Your task to perform on an android device: See recent photos Image 0: 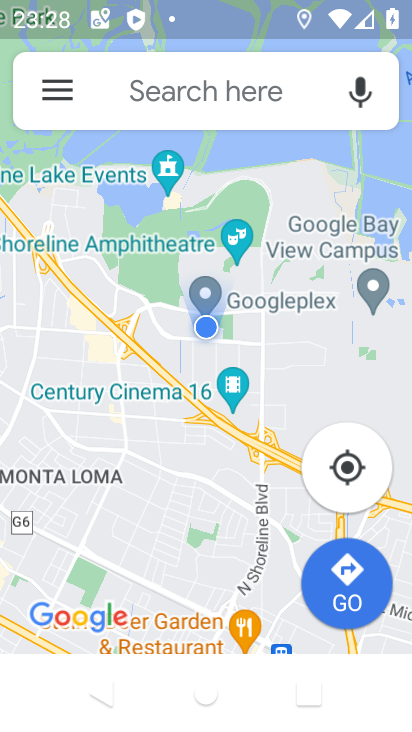
Step 0: press home button
Your task to perform on an android device: See recent photos Image 1: 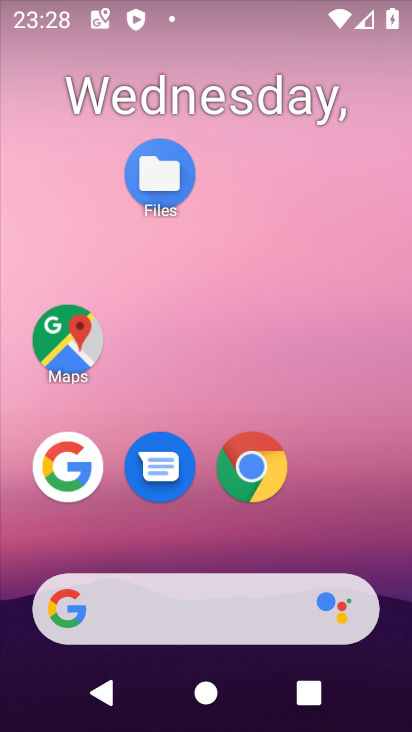
Step 1: drag from (204, 564) to (186, 90)
Your task to perform on an android device: See recent photos Image 2: 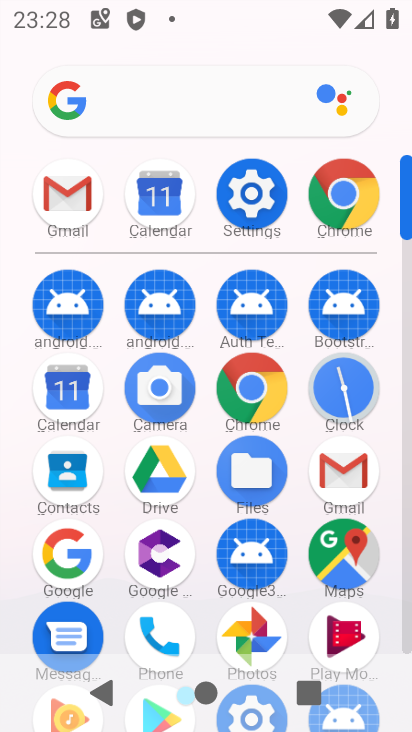
Step 2: click (265, 647)
Your task to perform on an android device: See recent photos Image 3: 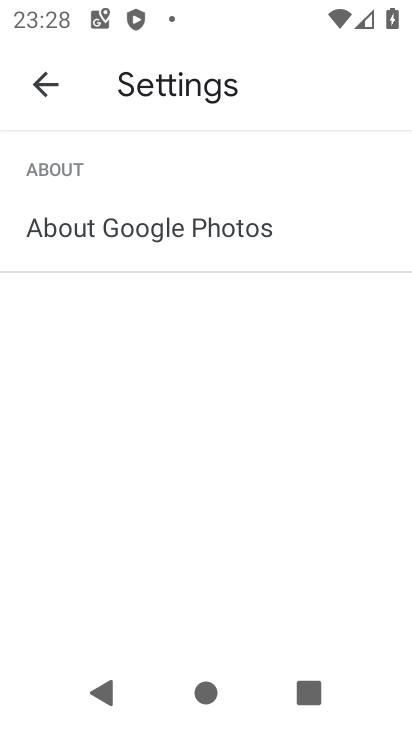
Step 3: click (39, 80)
Your task to perform on an android device: See recent photos Image 4: 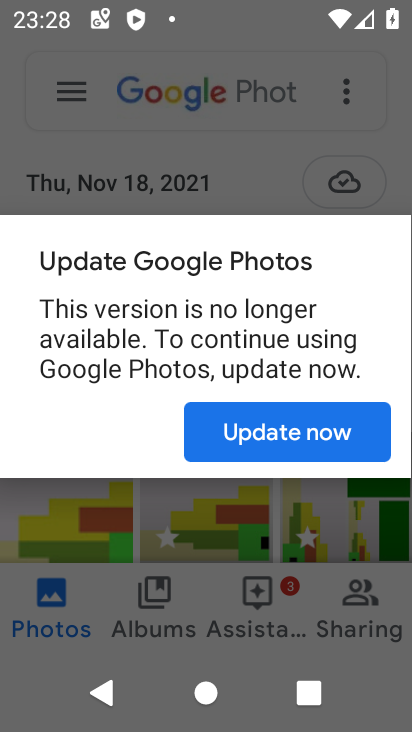
Step 4: click (276, 430)
Your task to perform on an android device: See recent photos Image 5: 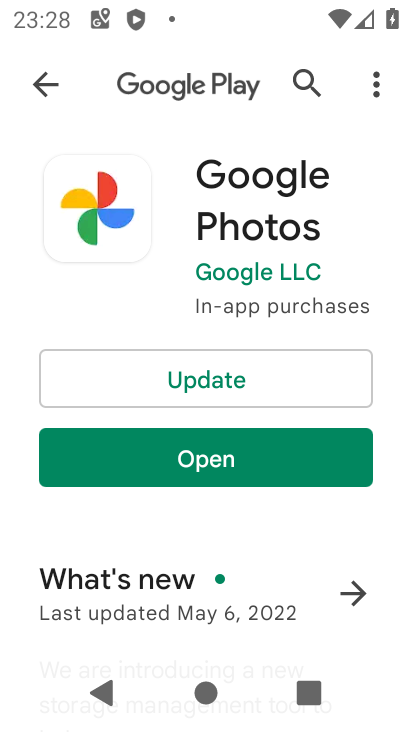
Step 5: click (243, 378)
Your task to perform on an android device: See recent photos Image 6: 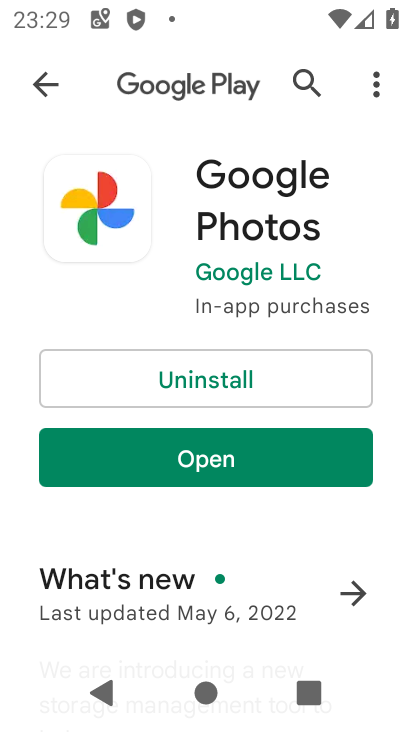
Step 6: click (193, 447)
Your task to perform on an android device: See recent photos Image 7: 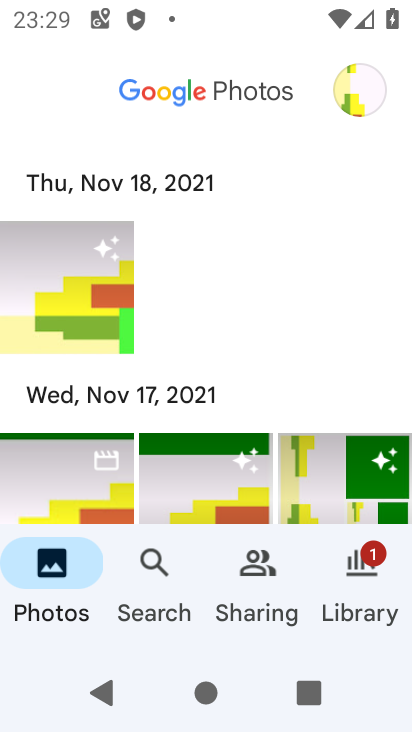
Step 7: task complete